Your task to perform on an android device: Open the calendar app, open the side menu, and click the "Day" option Image 0: 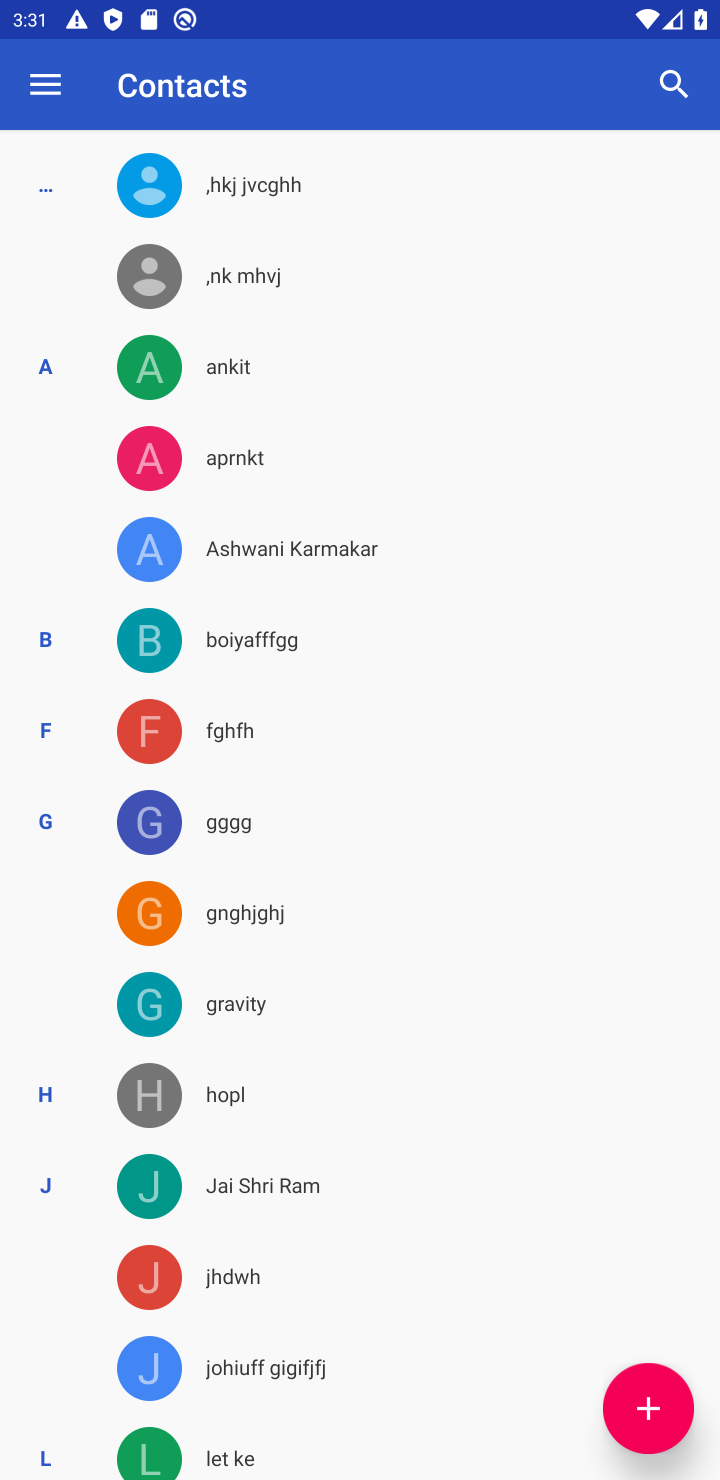
Step 0: press home button
Your task to perform on an android device: Open the calendar app, open the side menu, and click the "Day" option Image 1: 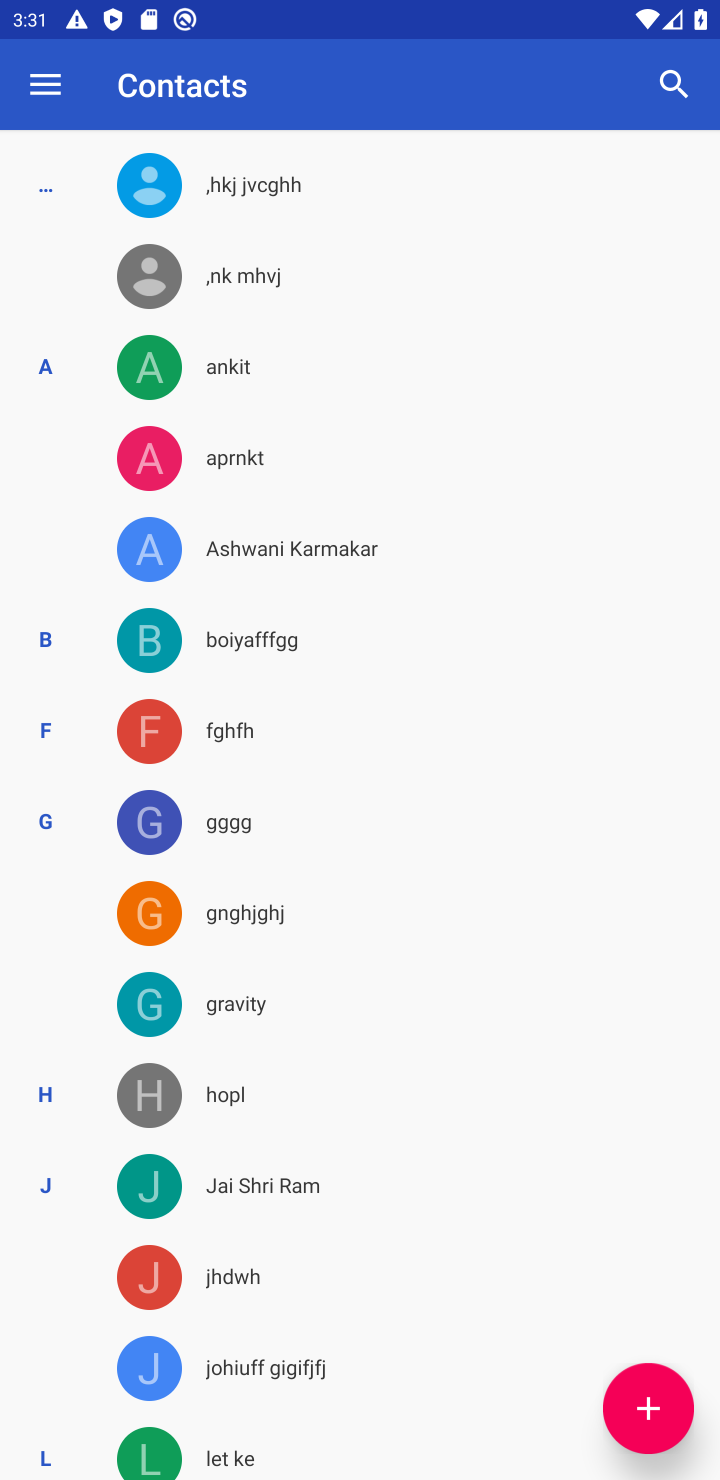
Step 1: press home button
Your task to perform on an android device: Open the calendar app, open the side menu, and click the "Day" option Image 2: 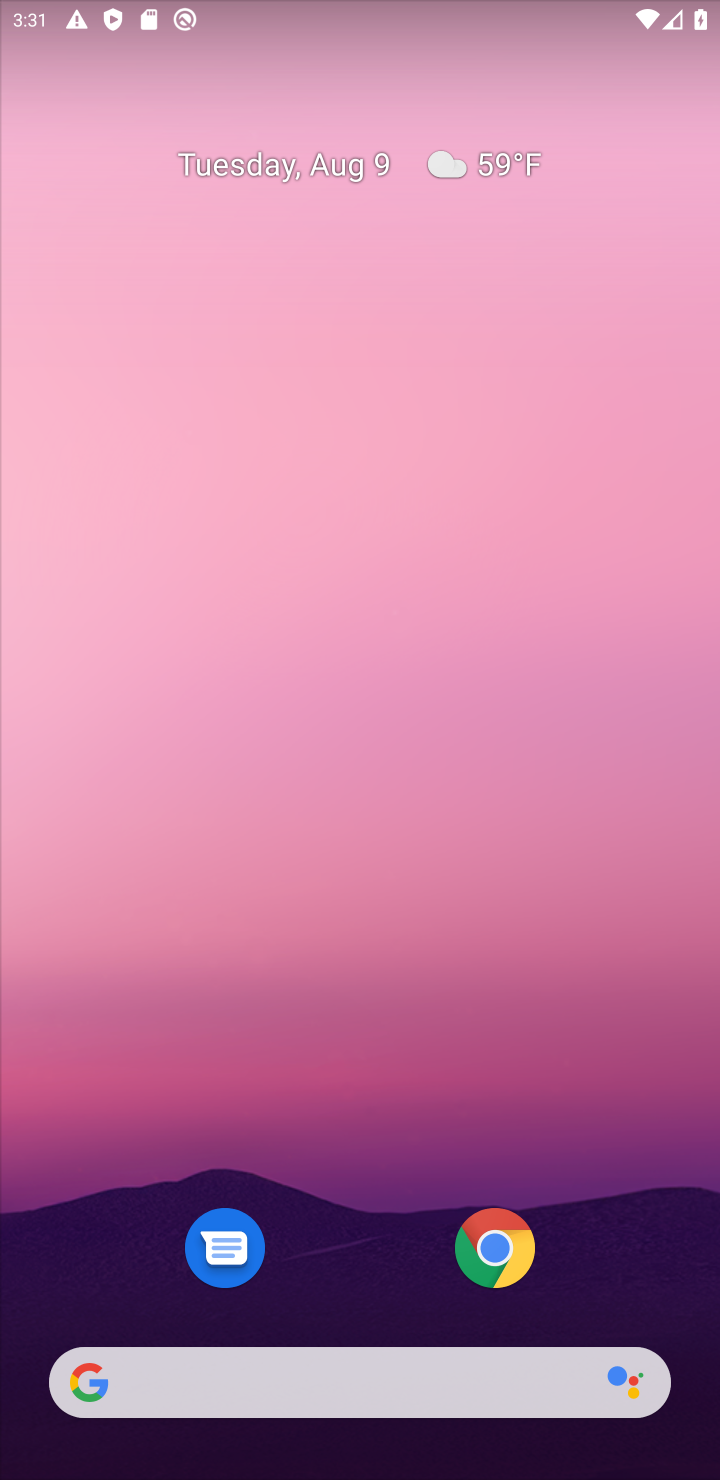
Step 2: drag from (356, 1086) to (265, 98)
Your task to perform on an android device: Open the calendar app, open the side menu, and click the "Day" option Image 3: 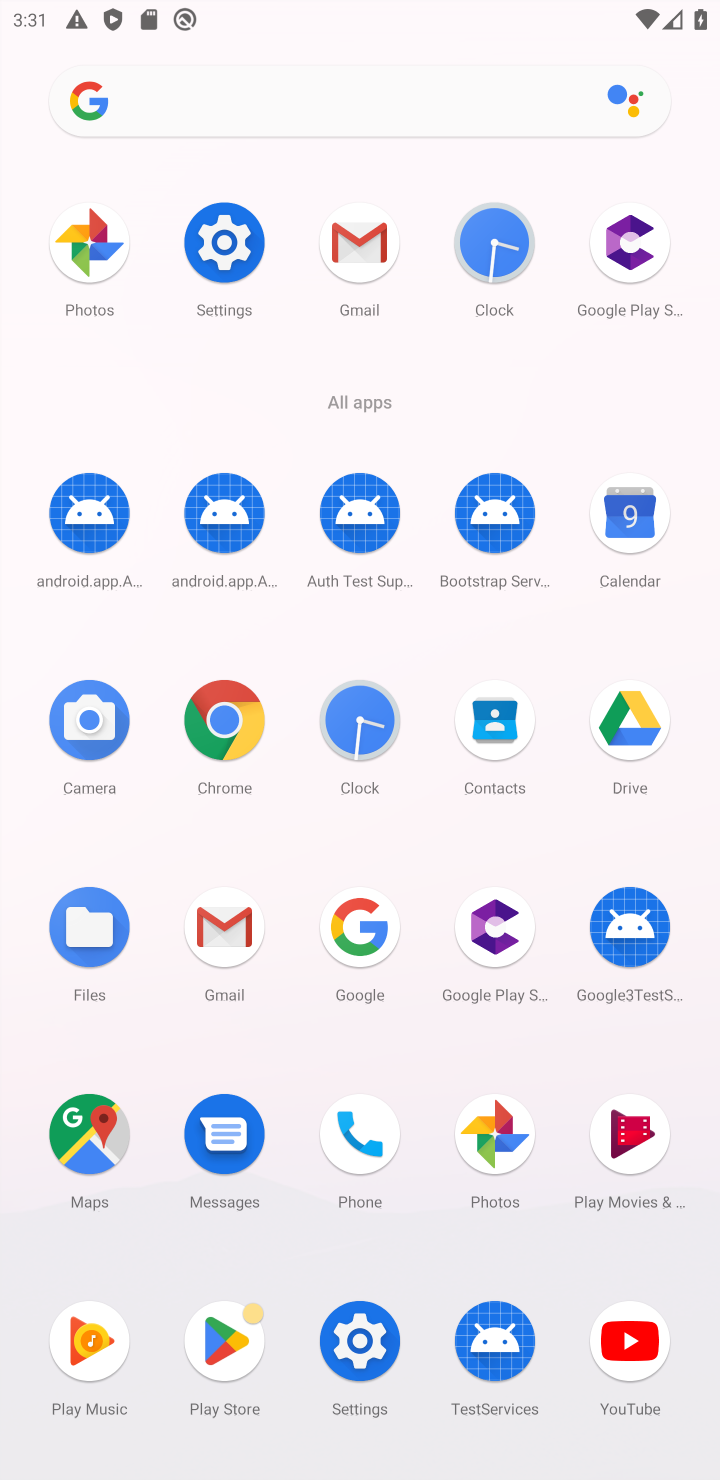
Step 3: click (647, 509)
Your task to perform on an android device: Open the calendar app, open the side menu, and click the "Day" option Image 4: 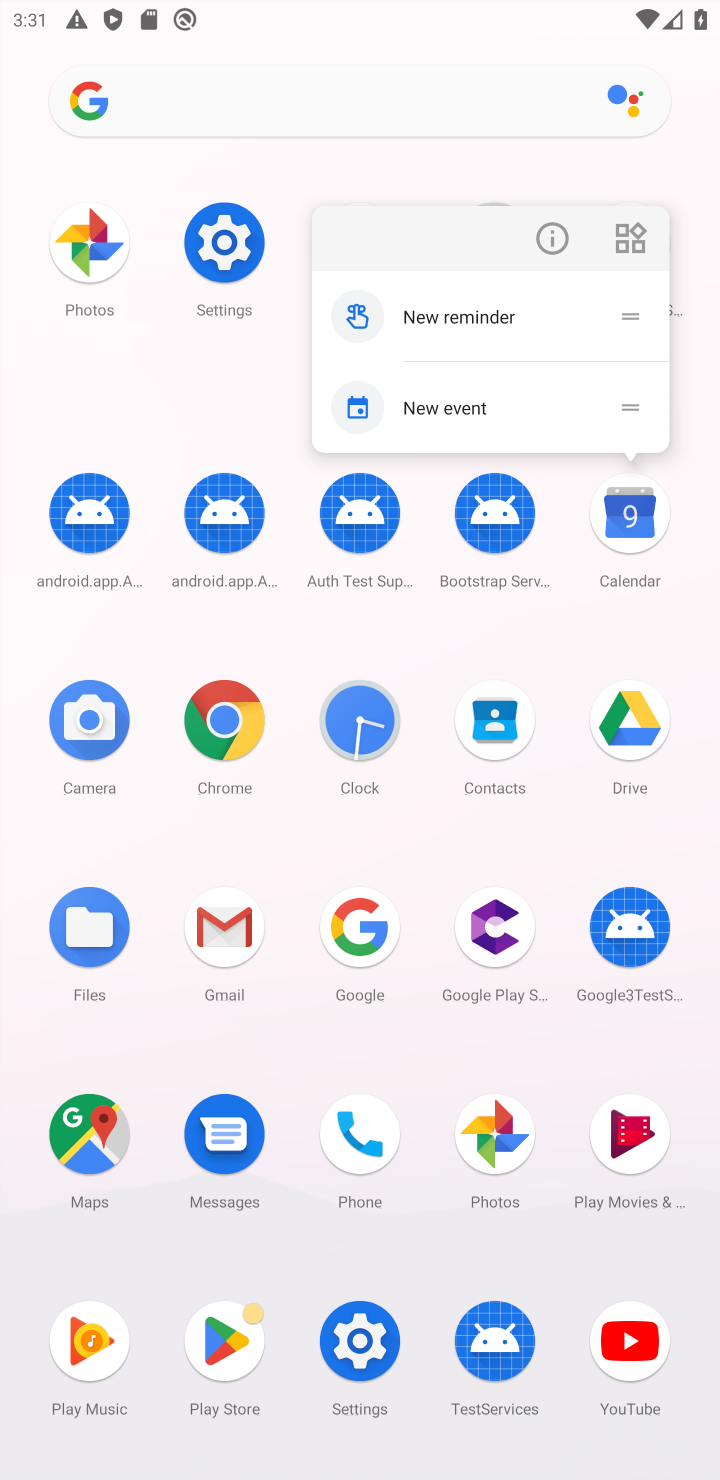
Step 4: click (647, 509)
Your task to perform on an android device: Open the calendar app, open the side menu, and click the "Day" option Image 5: 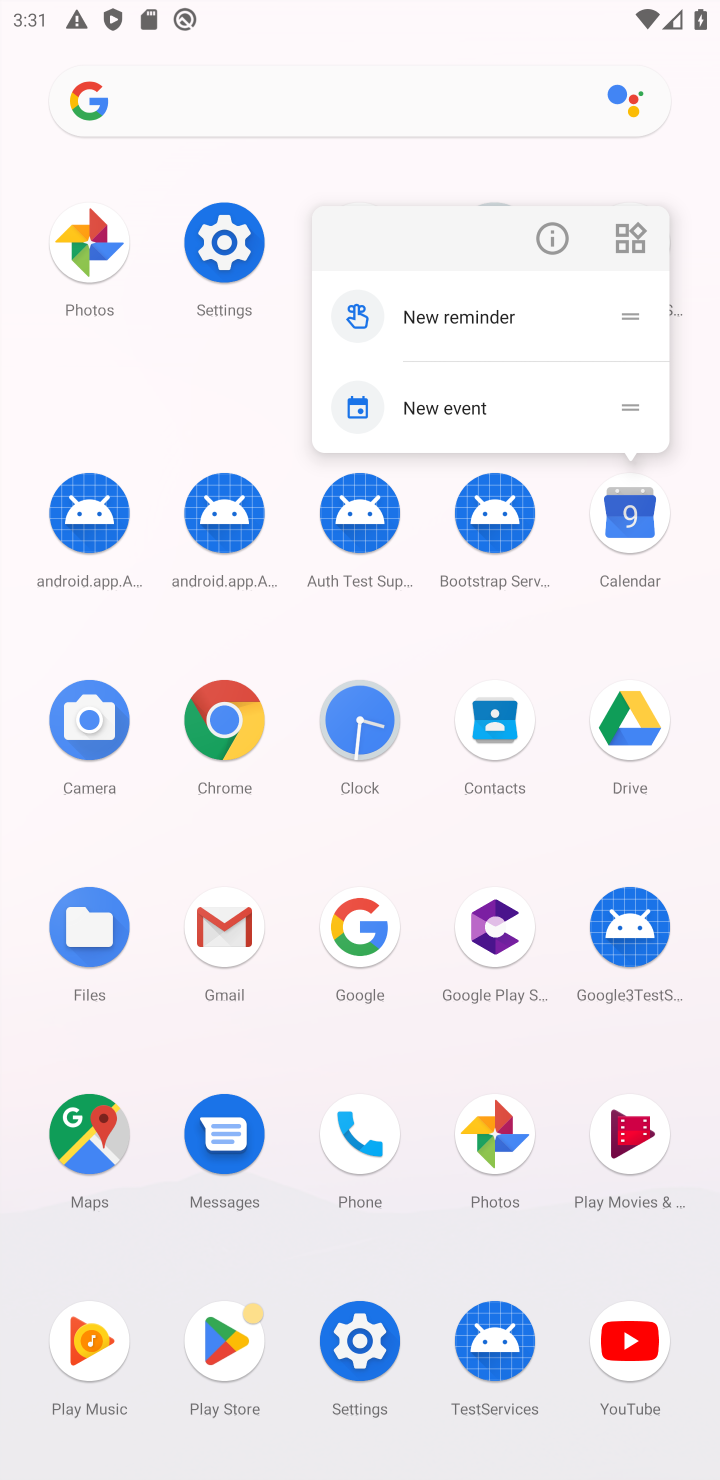
Step 5: click (618, 514)
Your task to perform on an android device: Open the calendar app, open the side menu, and click the "Day" option Image 6: 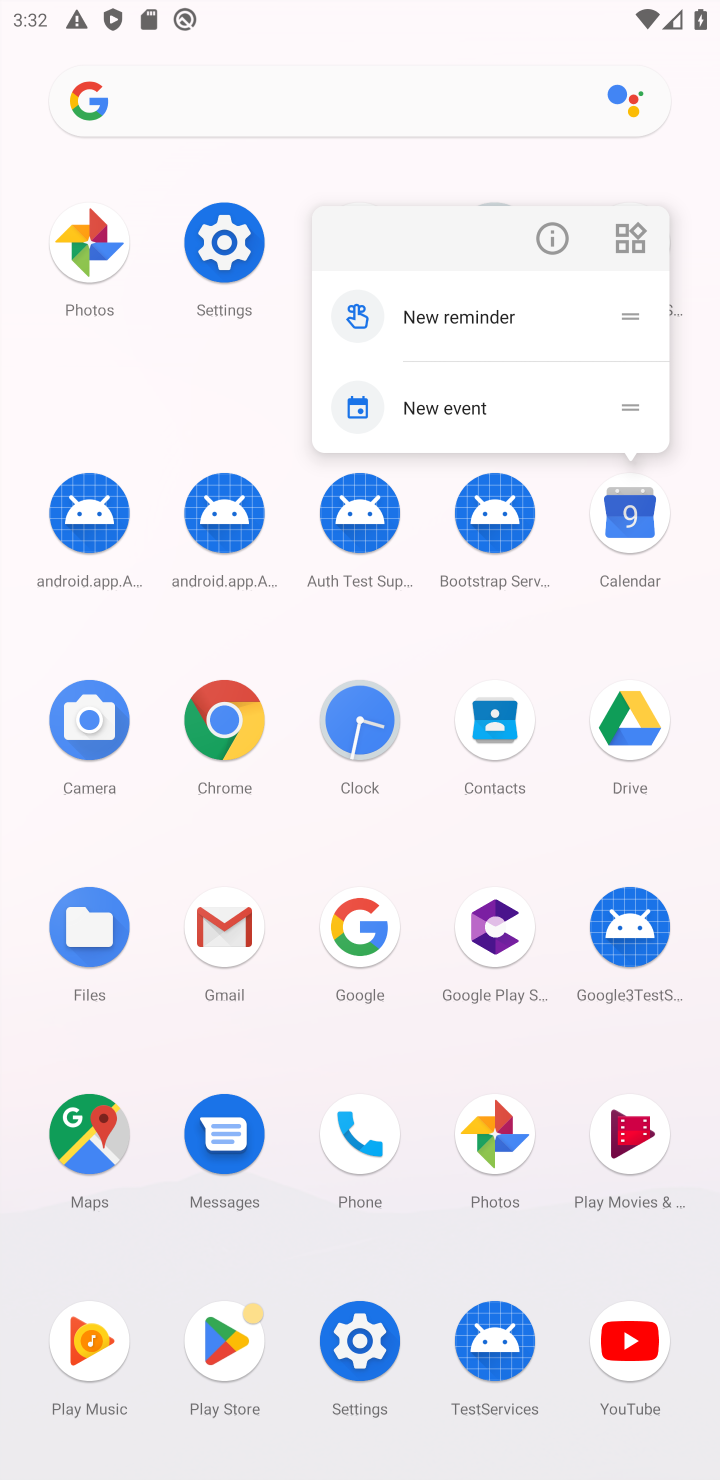
Step 6: click (621, 501)
Your task to perform on an android device: Open the calendar app, open the side menu, and click the "Day" option Image 7: 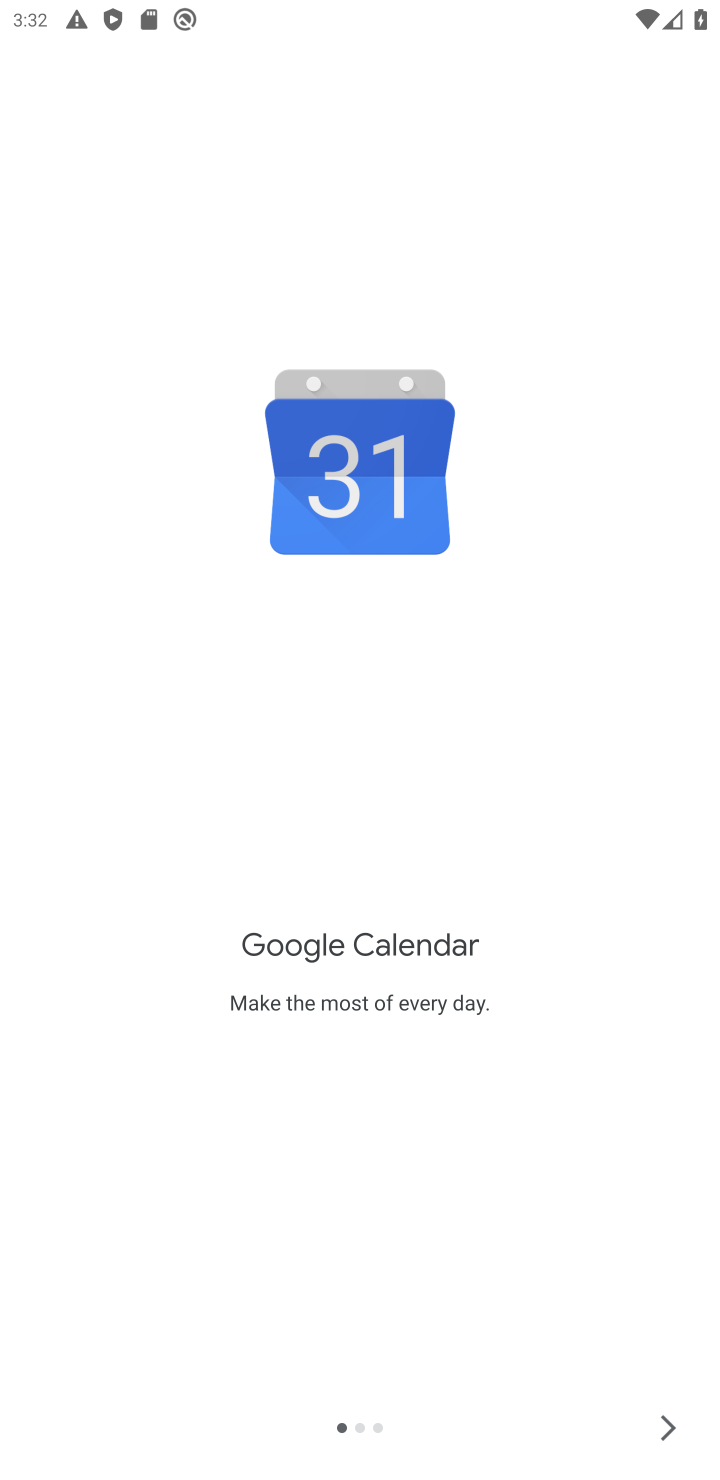
Step 7: click (661, 1440)
Your task to perform on an android device: Open the calendar app, open the side menu, and click the "Day" option Image 8: 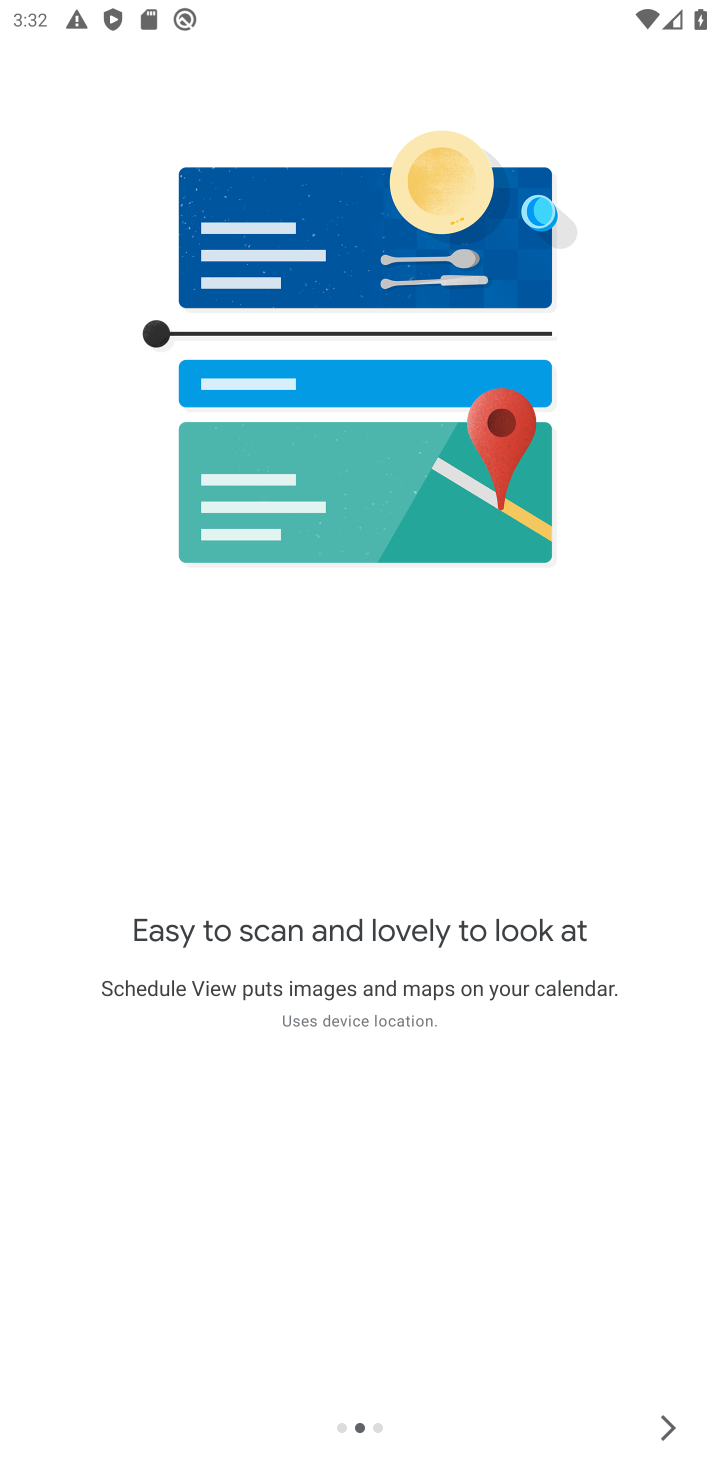
Step 8: click (661, 1440)
Your task to perform on an android device: Open the calendar app, open the side menu, and click the "Day" option Image 9: 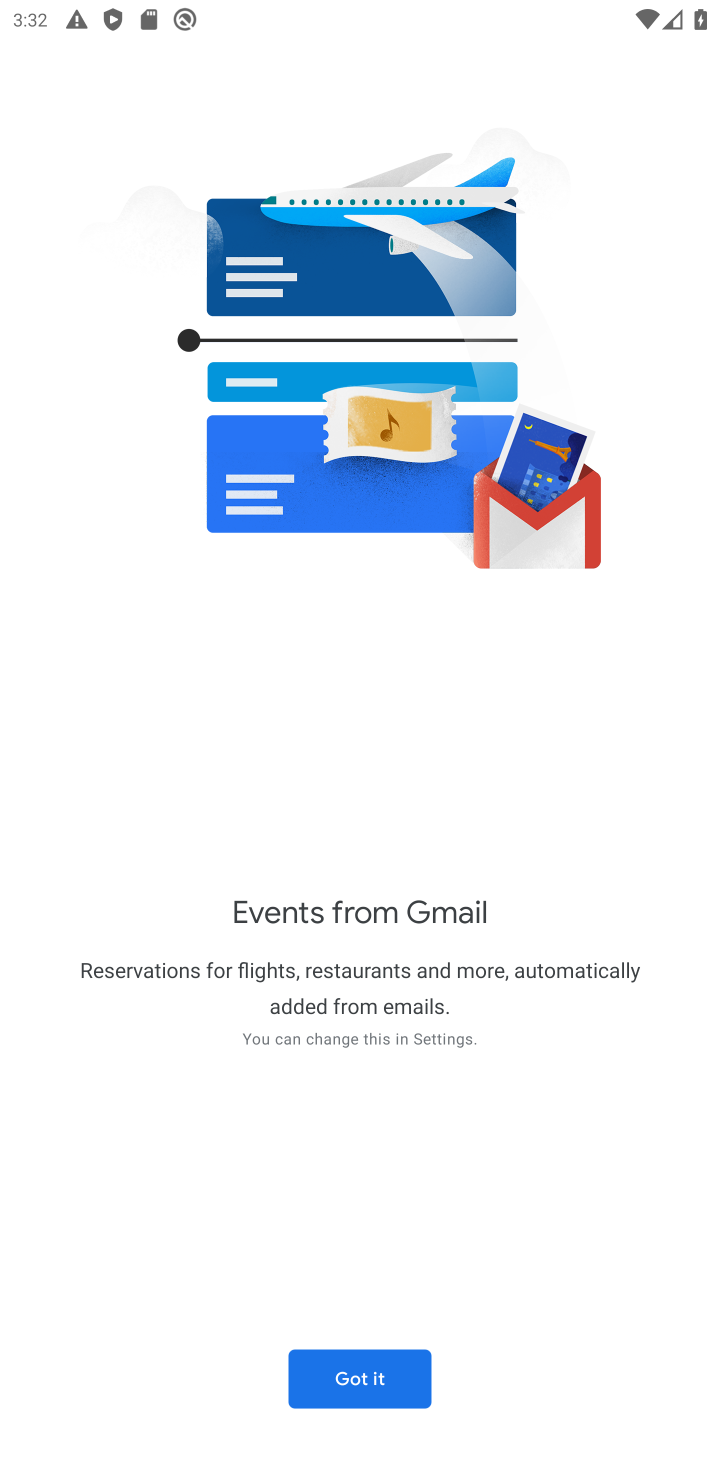
Step 9: click (358, 1345)
Your task to perform on an android device: Open the calendar app, open the side menu, and click the "Day" option Image 10: 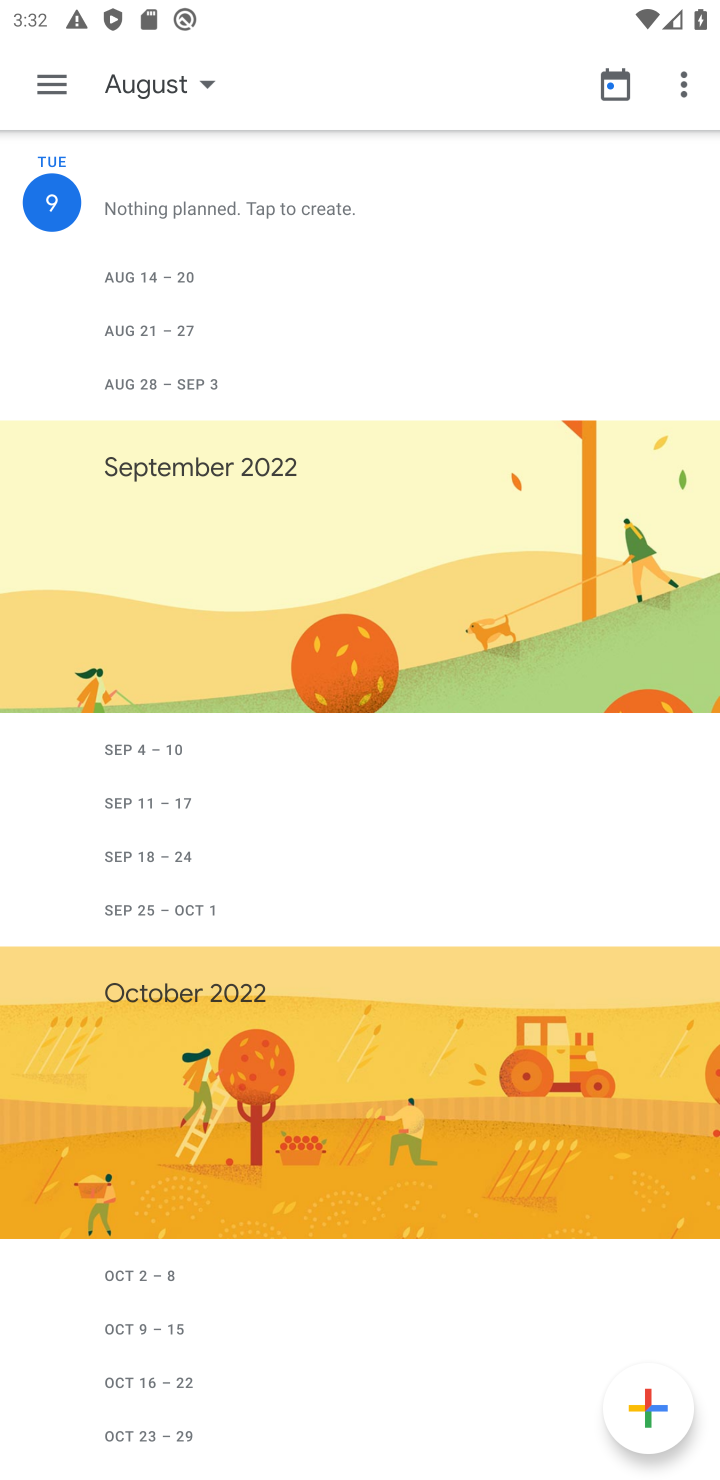
Step 10: click (61, 78)
Your task to perform on an android device: Open the calendar app, open the side menu, and click the "Day" option Image 11: 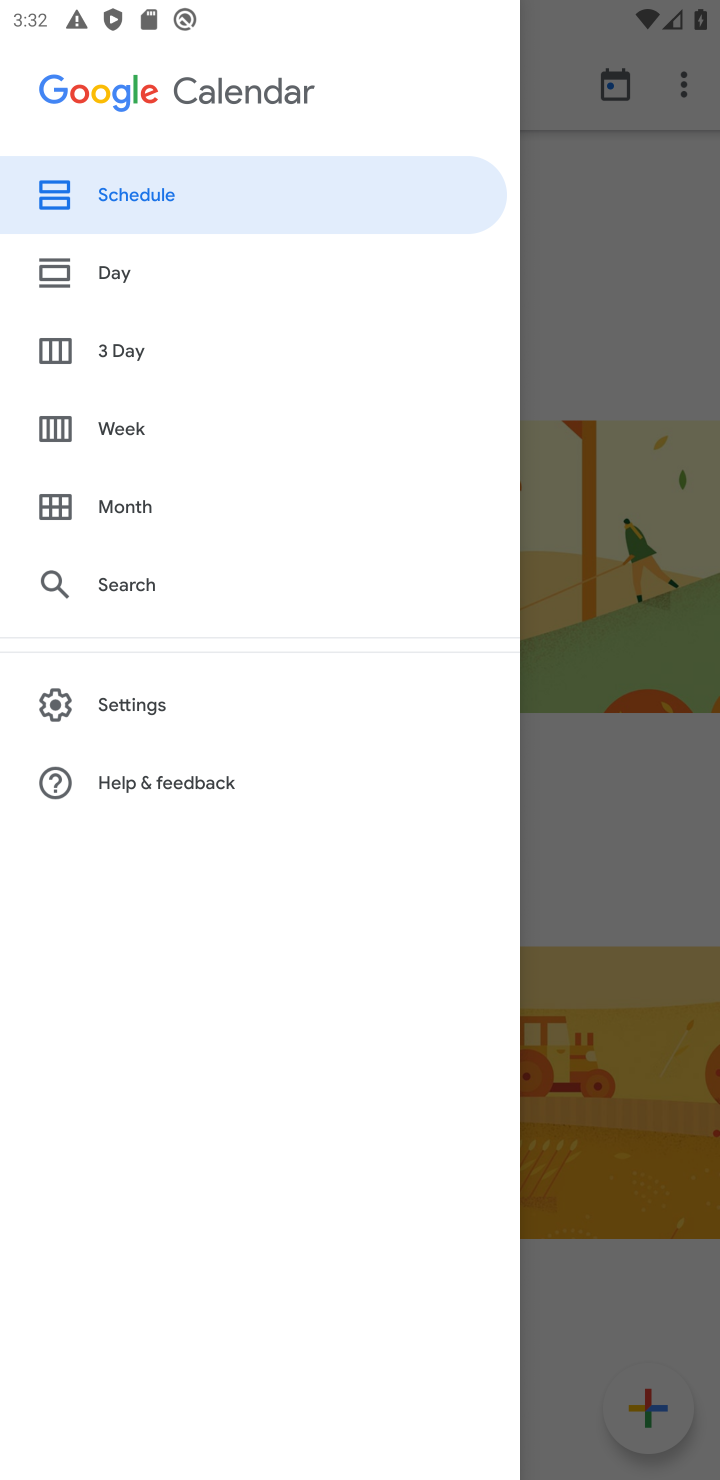
Step 11: click (113, 282)
Your task to perform on an android device: Open the calendar app, open the side menu, and click the "Day" option Image 12: 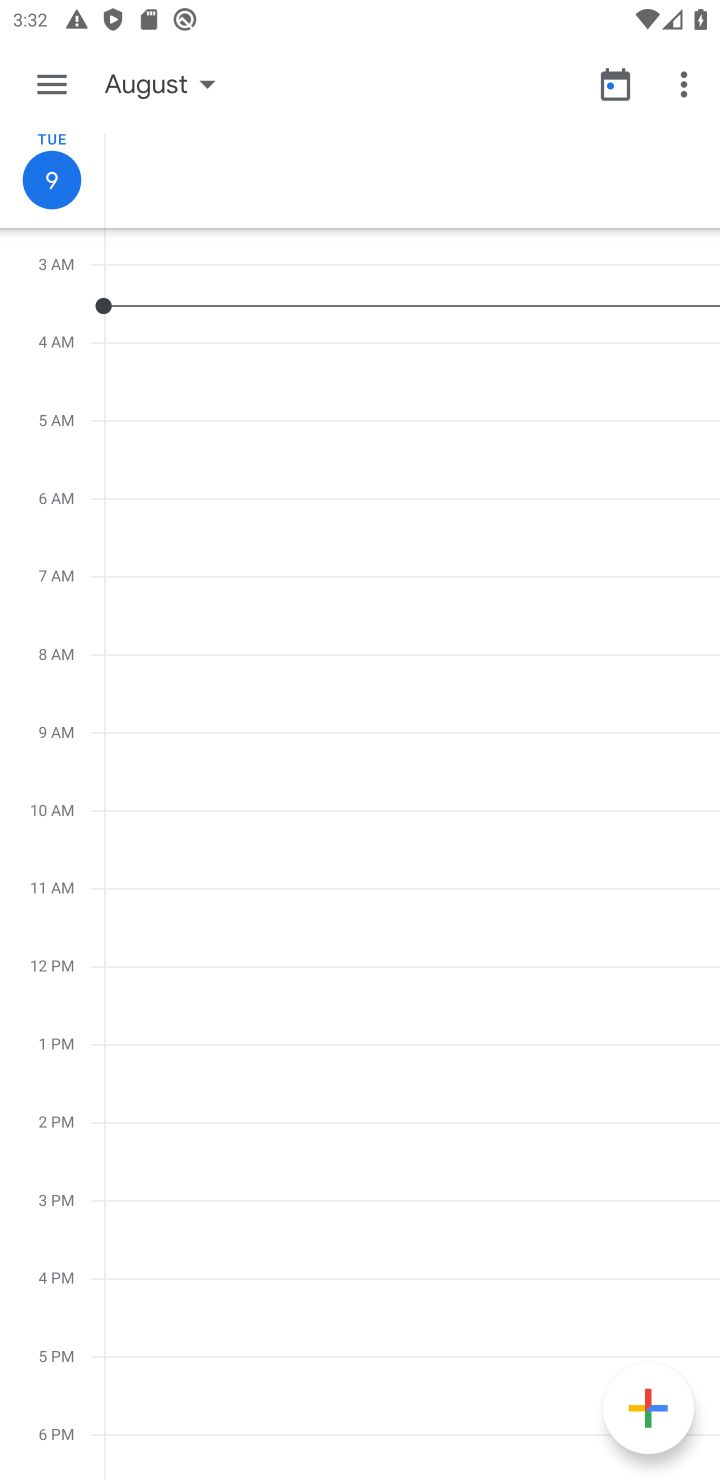
Step 12: task complete